Your task to perform on an android device: set the timer Image 0: 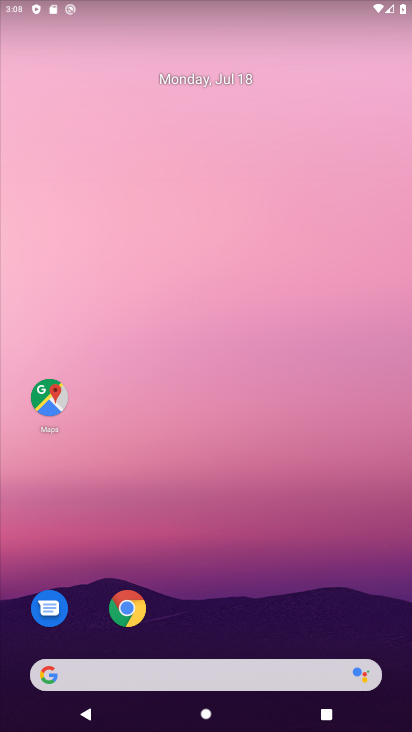
Step 0: drag from (330, 620) to (349, 79)
Your task to perform on an android device: set the timer Image 1: 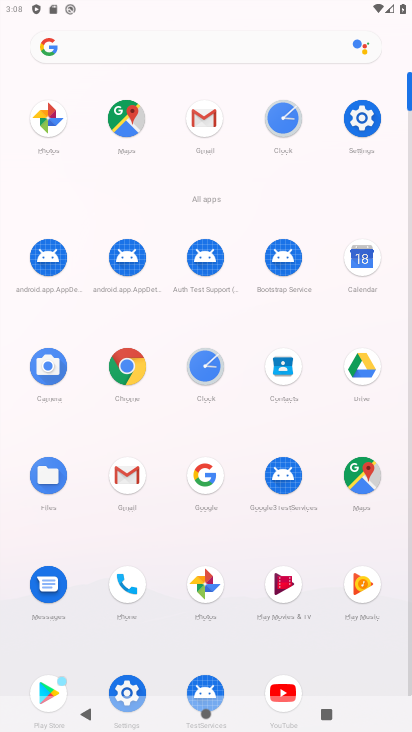
Step 1: click (199, 369)
Your task to perform on an android device: set the timer Image 2: 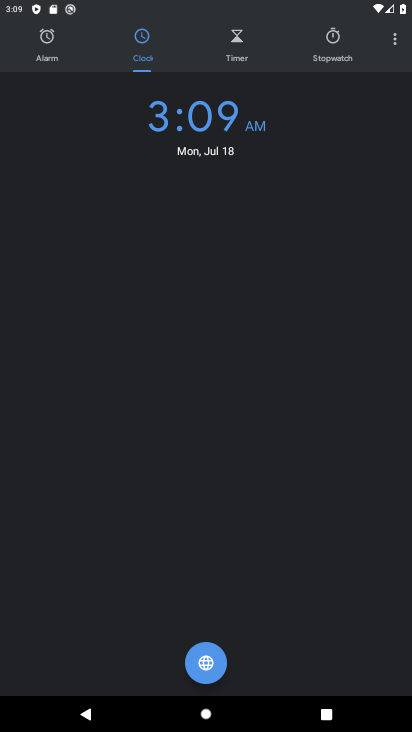
Step 2: click (223, 41)
Your task to perform on an android device: set the timer Image 3: 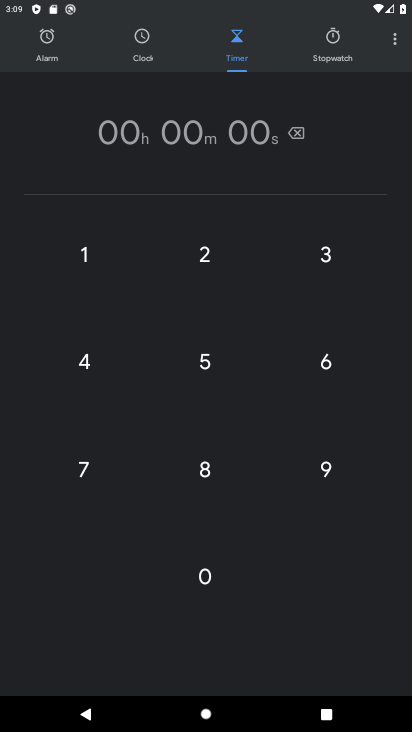
Step 3: click (194, 355)
Your task to perform on an android device: set the timer Image 4: 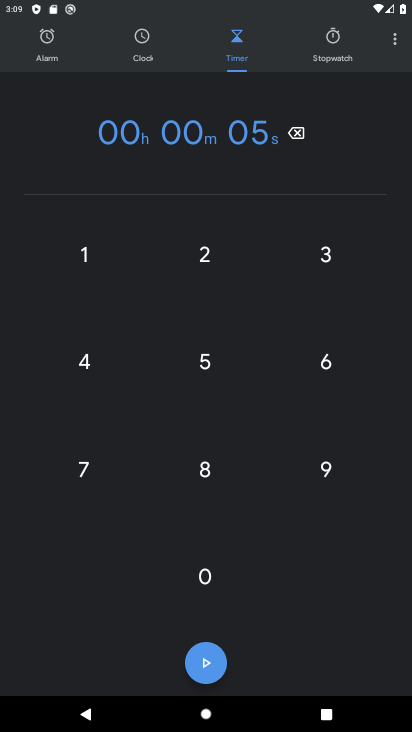
Step 4: task complete